Your task to perform on an android device: Go to wifi settings Image 0: 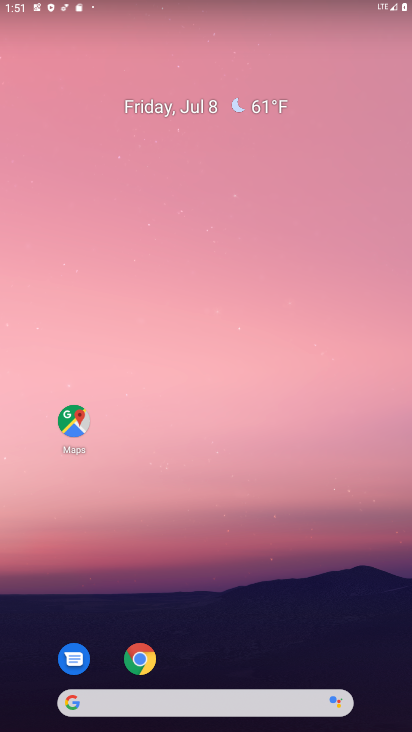
Step 0: drag from (227, 668) to (131, 104)
Your task to perform on an android device: Go to wifi settings Image 1: 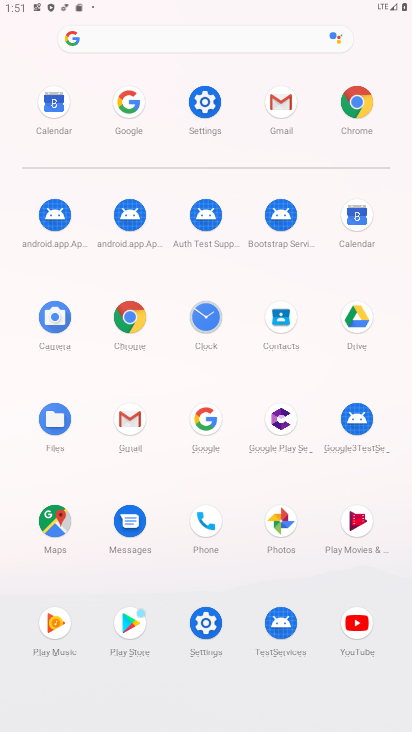
Step 1: click (200, 112)
Your task to perform on an android device: Go to wifi settings Image 2: 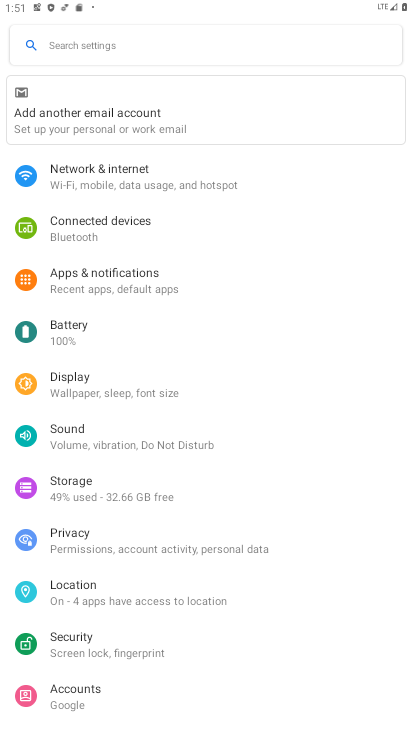
Step 2: click (108, 115)
Your task to perform on an android device: Go to wifi settings Image 3: 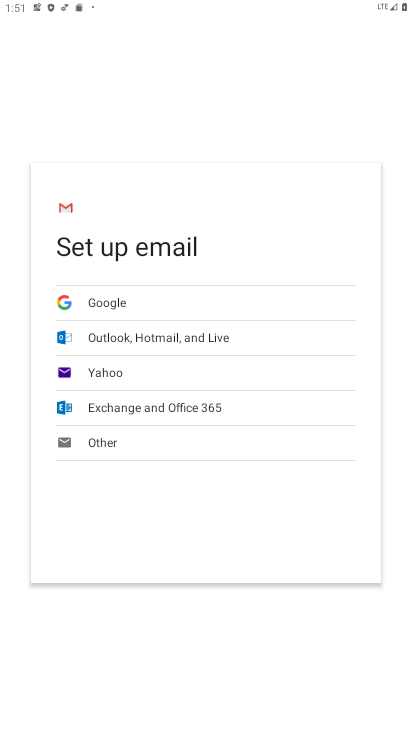
Step 3: press back button
Your task to perform on an android device: Go to wifi settings Image 4: 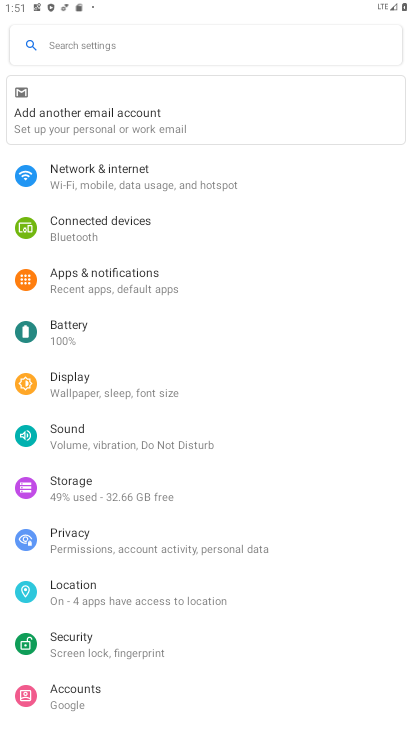
Step 4: click (77, 178)
Your task to perform on an android device: Go to wifi settings Image 5: 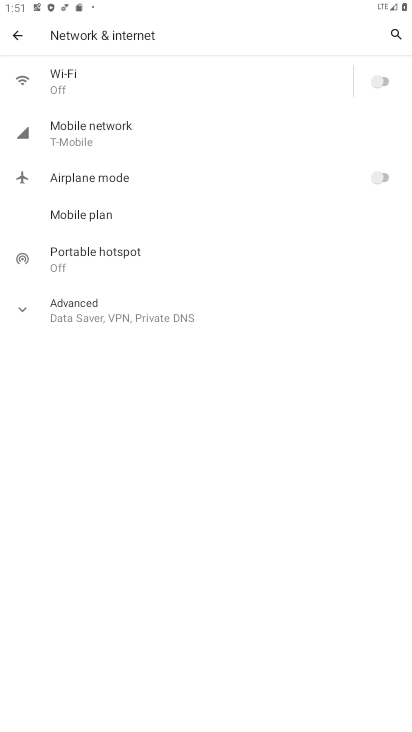
Step 5: click (61, 95)
Your task to perform on an android device: Go to wifi settings Image 6: 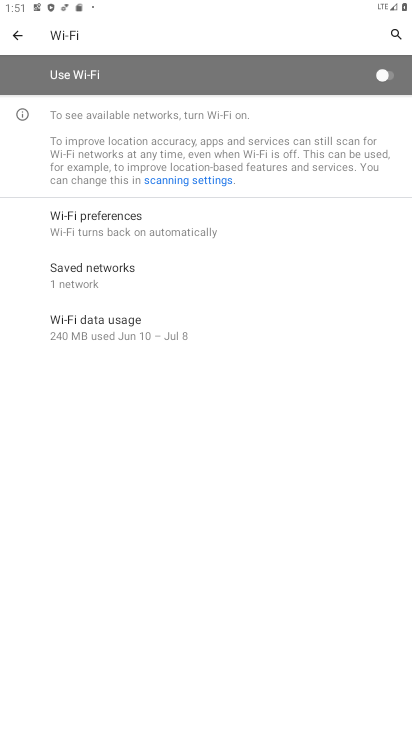
Step 6: task complete